Your task to perform on an android device: check data usage Image 0: 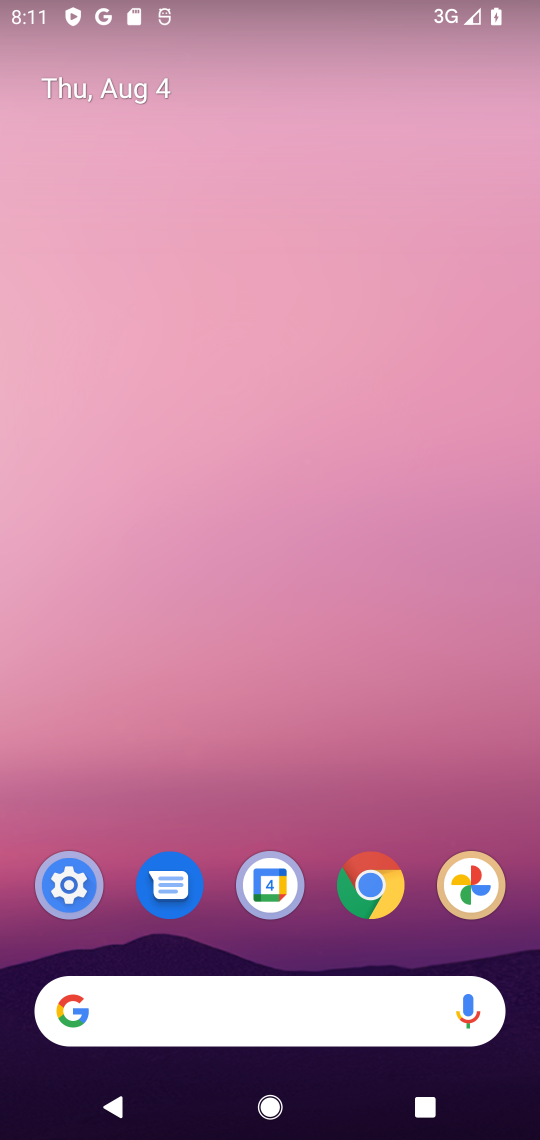
Step 0: press home button
Your task to perform on an android device: check data usage Image 1: 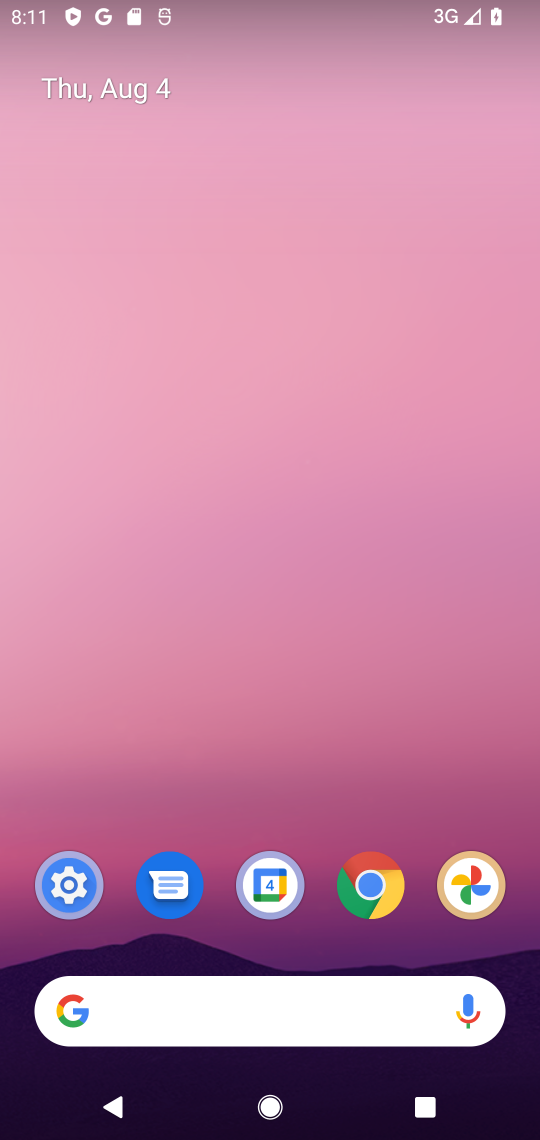
Step 1: drag from (315, 827) to (342, 42)
Your task to perform on an android device: check data usage Image 2: 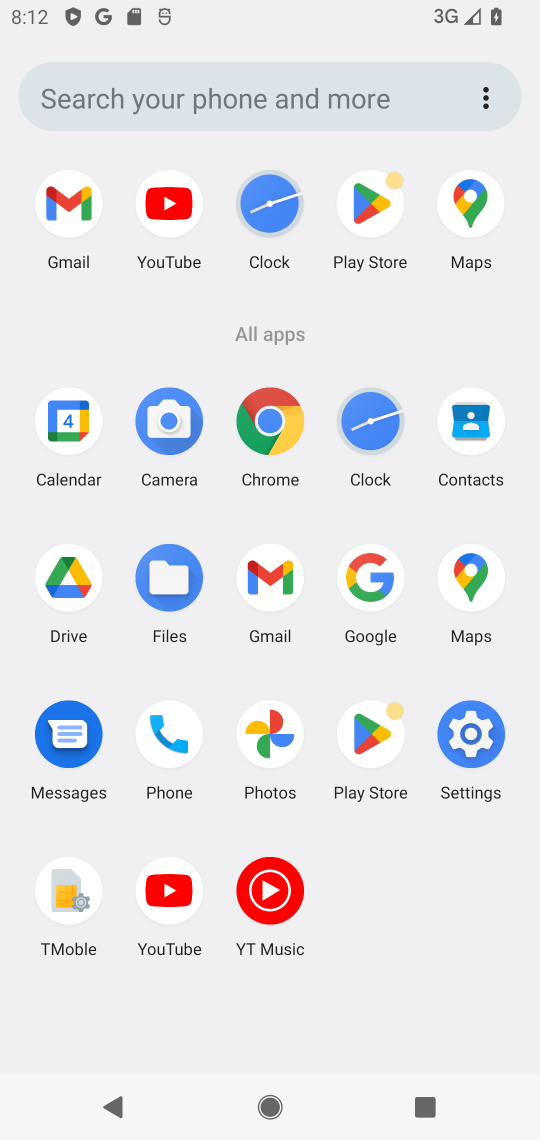
Step 2: click (466, 725)
Your task to perform on an android device: check data usage Image 3: 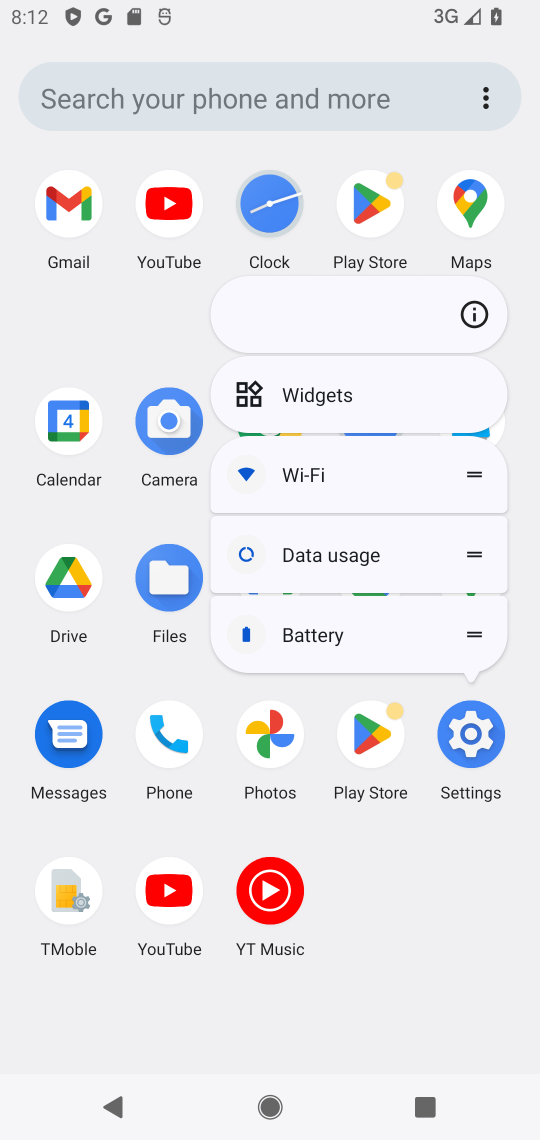
Step 3: click (476, 720)
Your task to perform on an android device: check data usage Image 4: 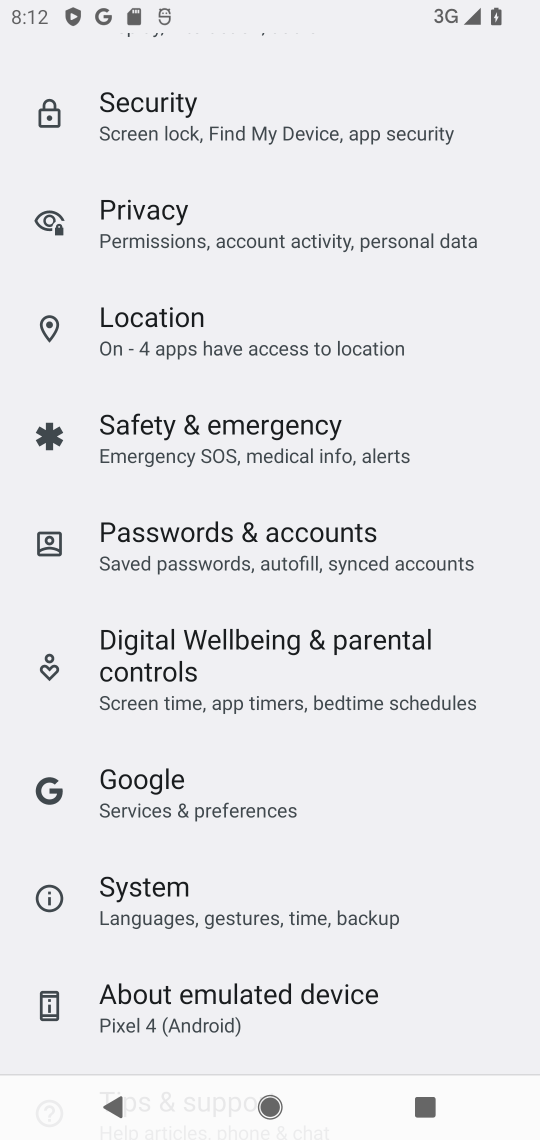
Step 4: drag from (223, 158) to (252, 1044)
Your task to perform on an android device: check data usage Image 5: 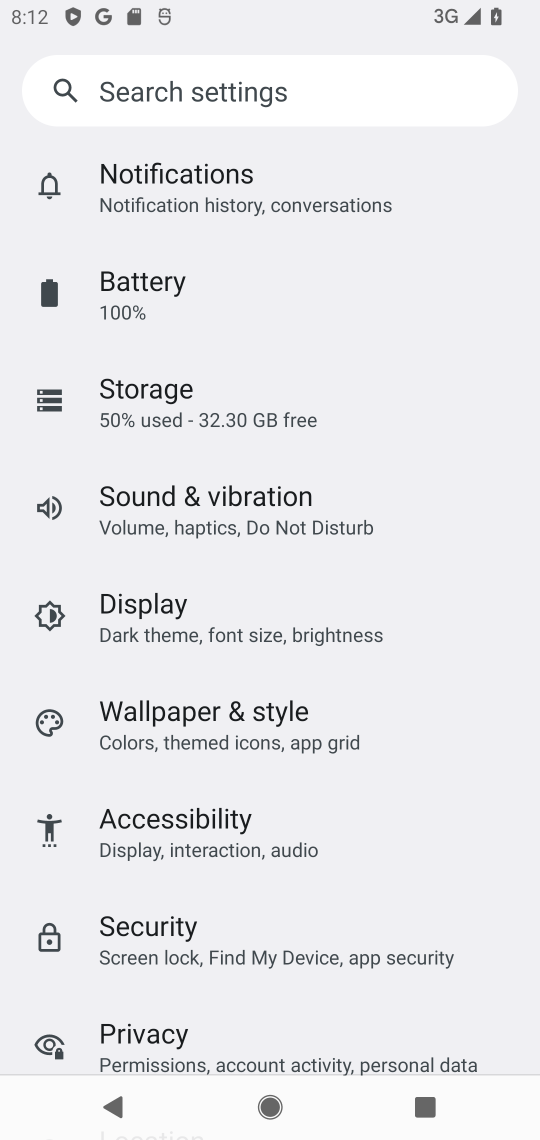
Step 5: drag from (219, 224) to (250, 1061)
Your task to perform on an android device: check data usage Image 6: 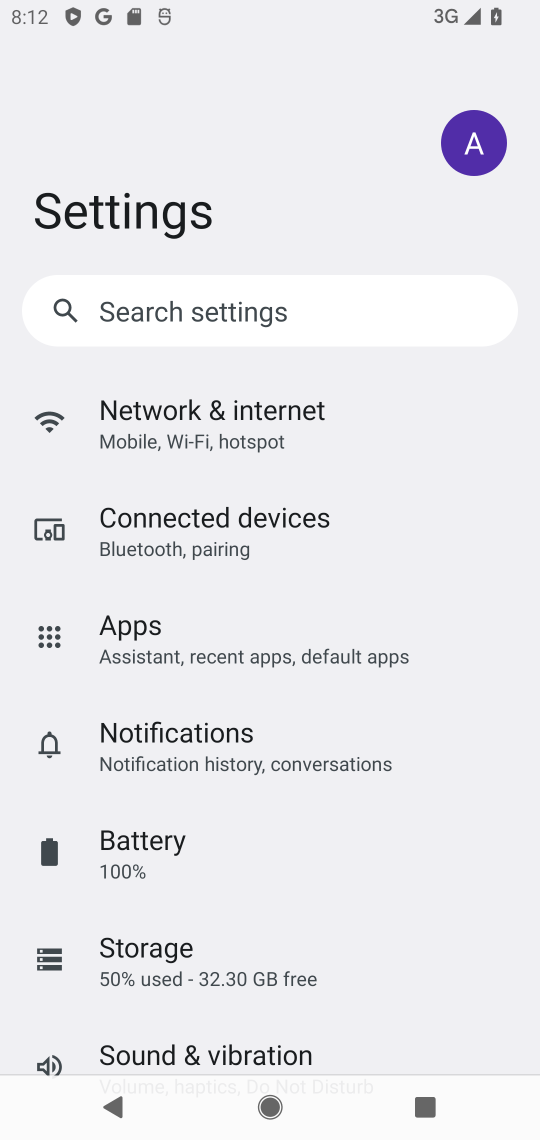
Step 6: click (240, 426)
Your task to perform on an android device: check data usage Image 7: 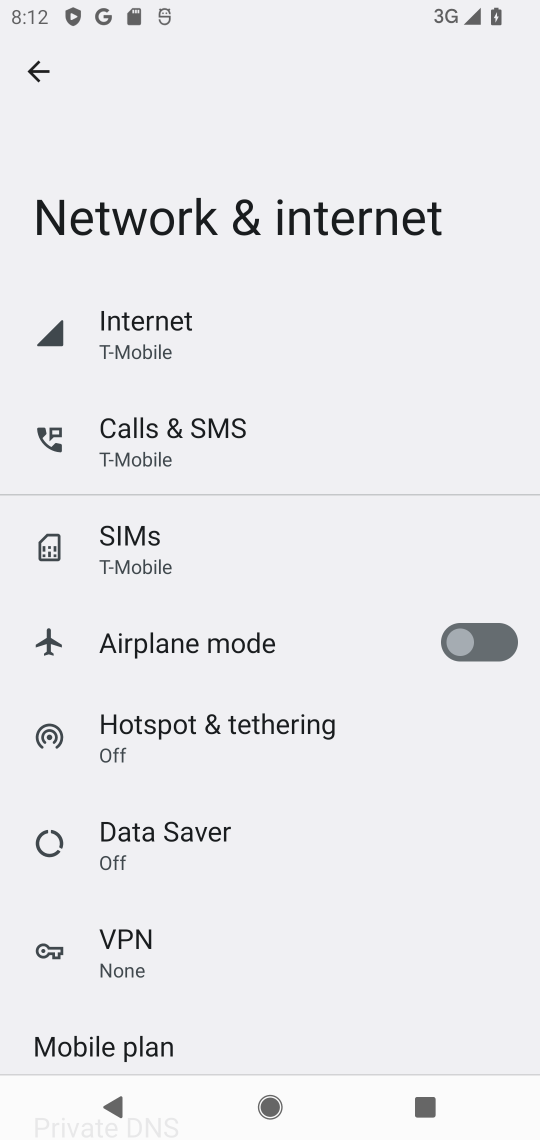
Step 7: click (209, 323)
Your task to perform on an android device: check data usage Image 8: 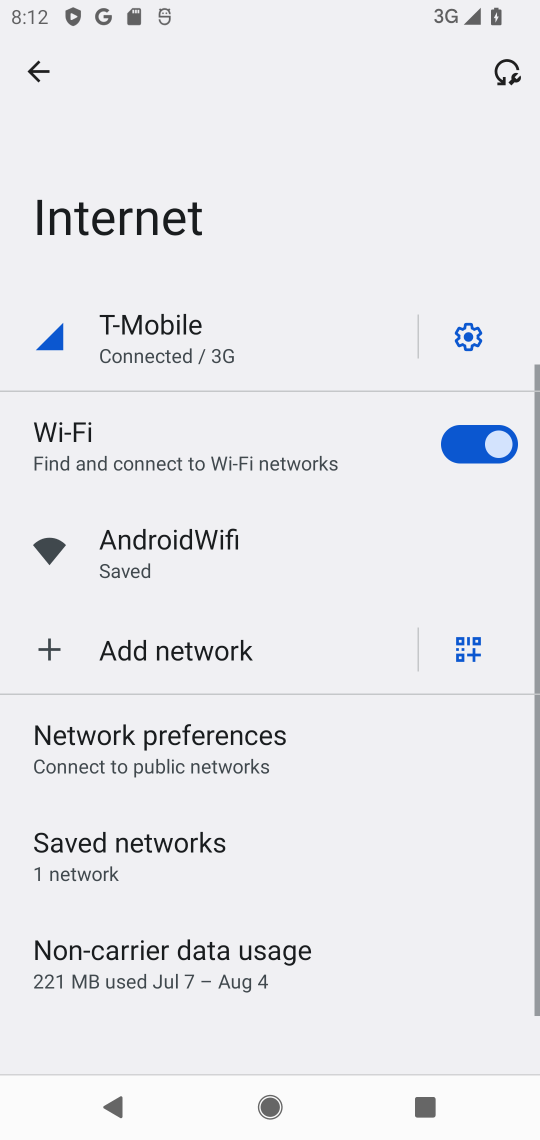
Step 8: click (163, 327)
Your task to perform on an android device: check data usage Image 9: 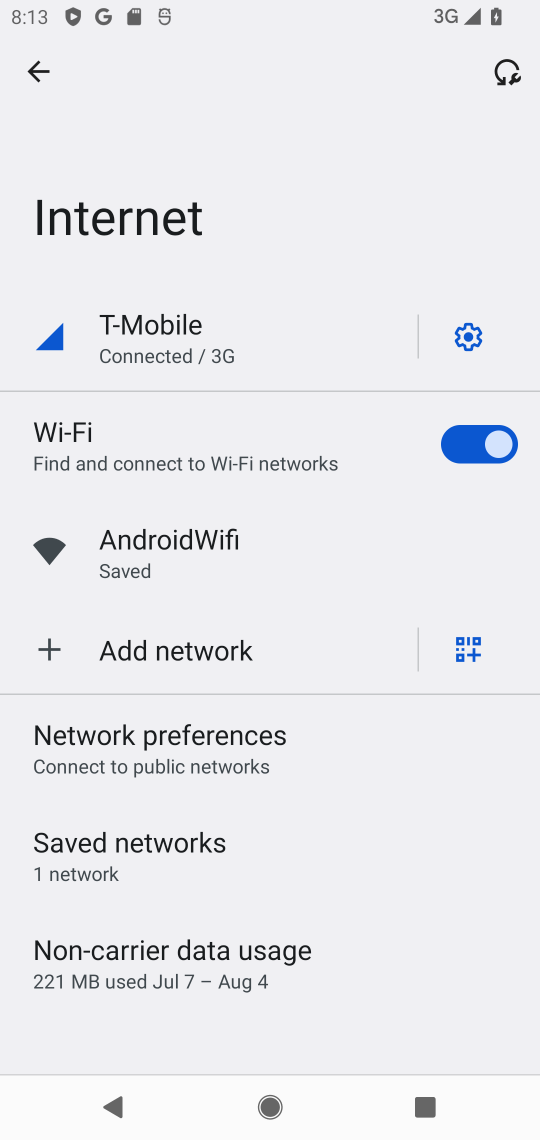
Step 9: click (466, 329)
Your task to perform on an android device: check data usage Image 10: 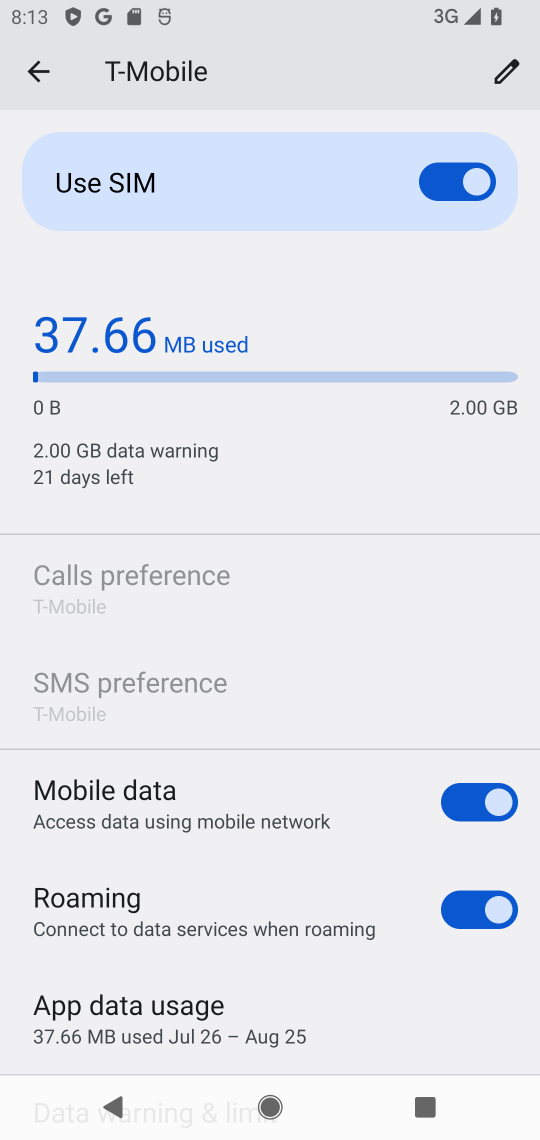
Step 10: click (258, 1016)
Your task to perform on an android device: check data usage Image 11: 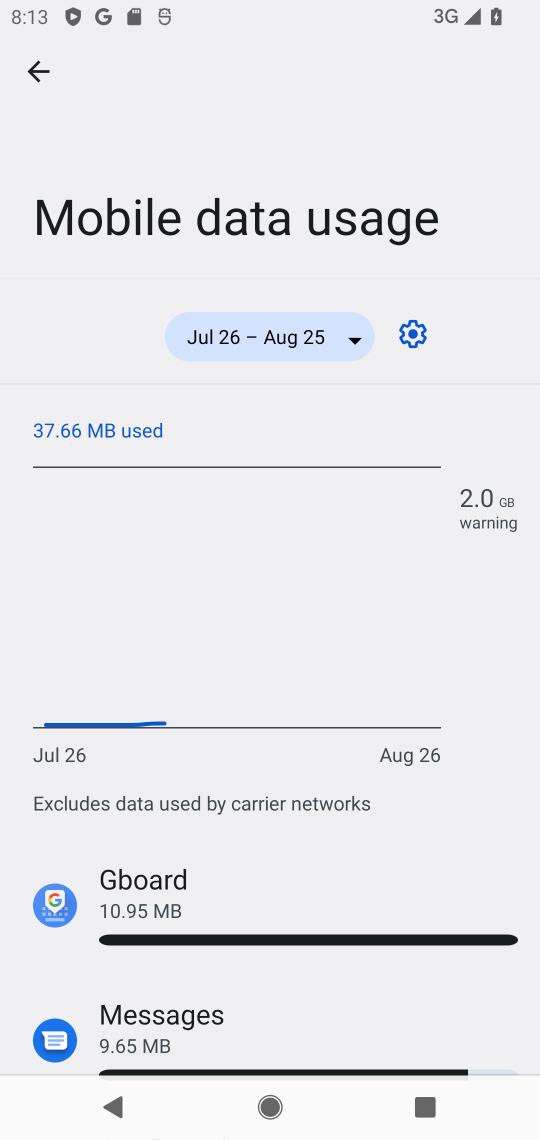
Step 11: task complete